Your task to perform on an android device: Open Reddit.com Image 0: 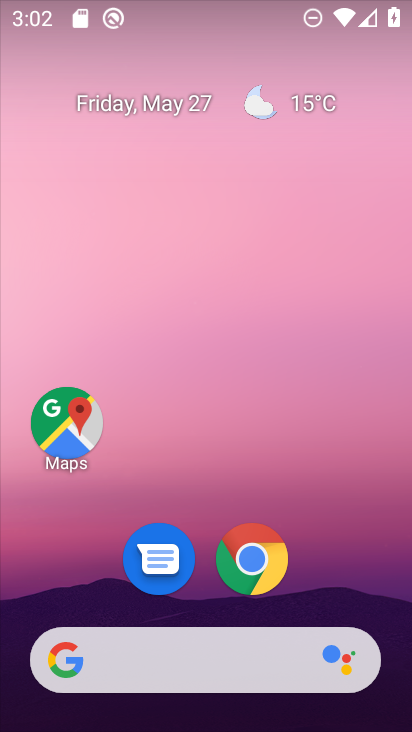
Step 0: drag from (309, 655) to (258, 88)
Your task to perform on an android device: Open Reddit.com Image 1: 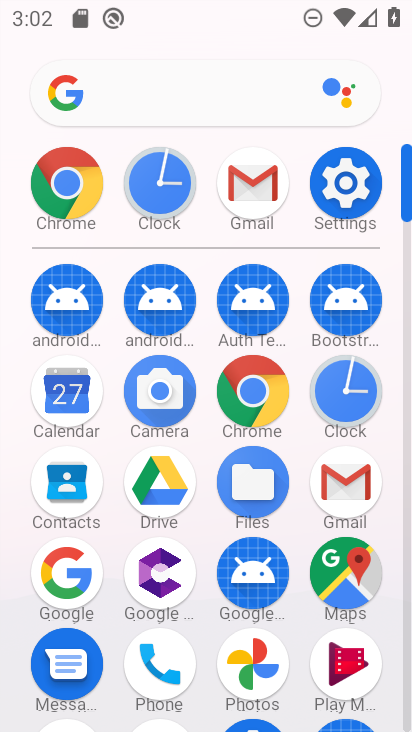
Step 1: click (247, 373)
Your task to perform on an android device: Open Reddit.com Image 2: 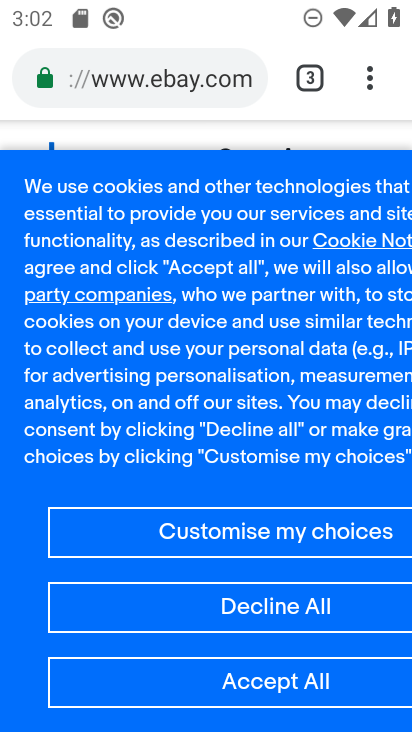
Step 2: click (190, 78)
Your task to perform on an android device: Open Reddit.com Image 3: 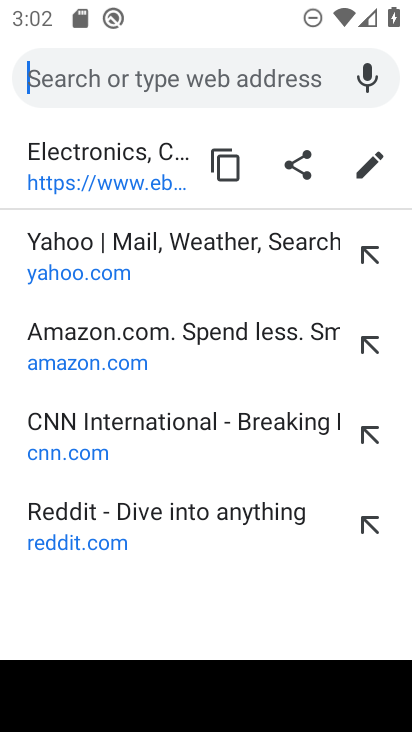
Step 3: click (102, 530)
Your task to perform on an android device: Open Reddit.com Image 4: 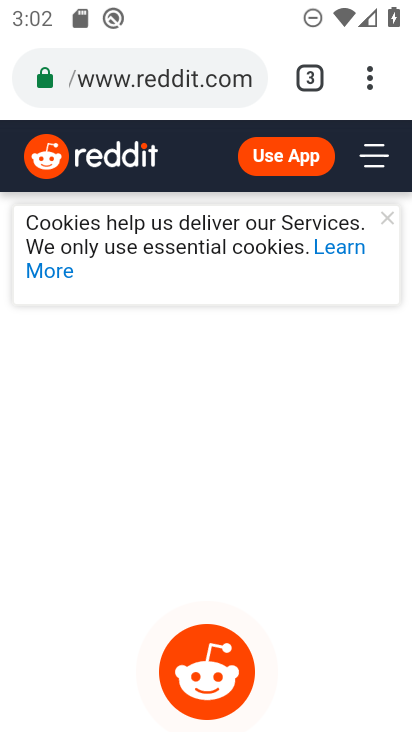
Step 4: task complete